Your task to perform on an android device: toggle show notifications on the lock screen Image 0: 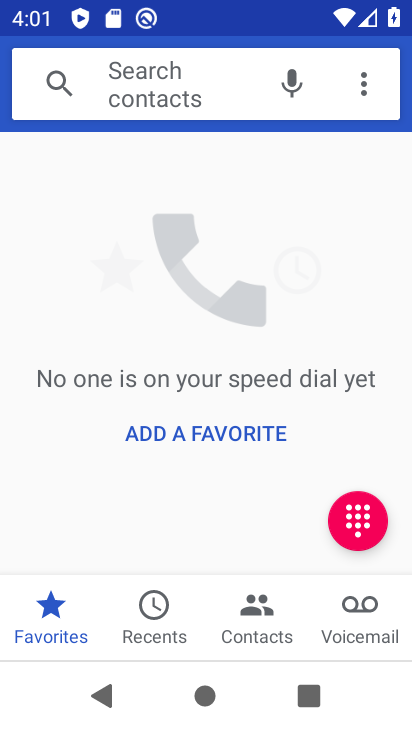
Step 0: press home button
Your task to perform on an android device: toggle show notifications on the lock screen Image 1: 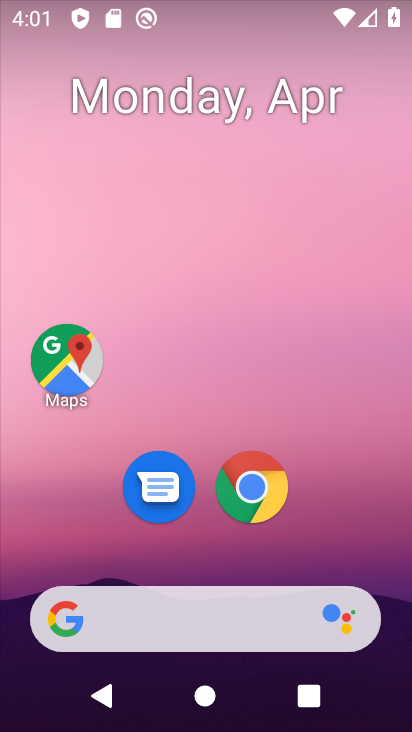
Step 1: drag from (377, 553) to (375, 163)
Your task to perform on an android device: toggle show notifications on the lock screen Image 2: 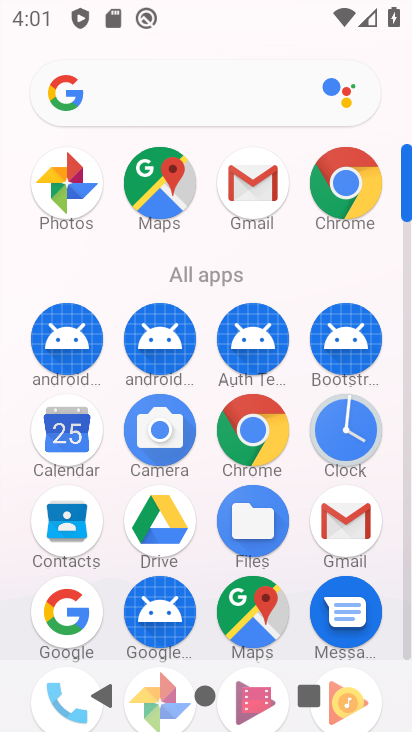
Step 2: drag from (399, 545) to (407, 480)
Your task to perform on an android device: toggle show notifications on the lock screen Image 3: 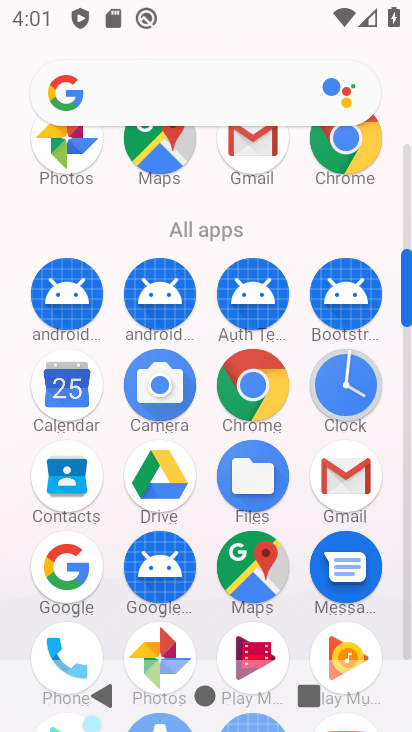
Step 3: drag from (408, 576) to (398, 410)
Your task to perform on an android device: toggle show notifications on the lock screen Image 4: 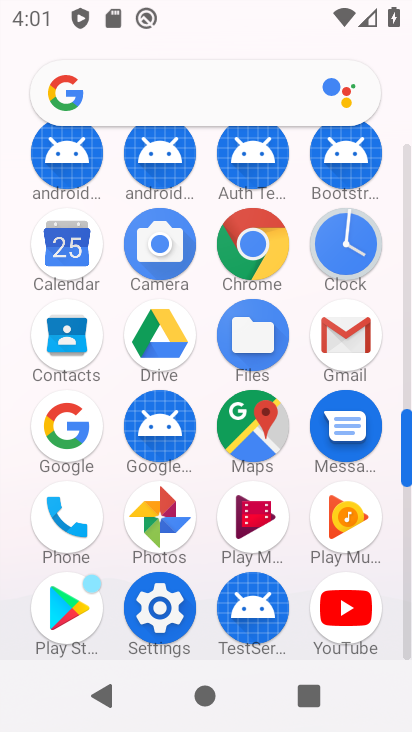
Step 4: click (169, 609)
Your task to perform on an android device: toggle show notifications on the lock screen Image 5: 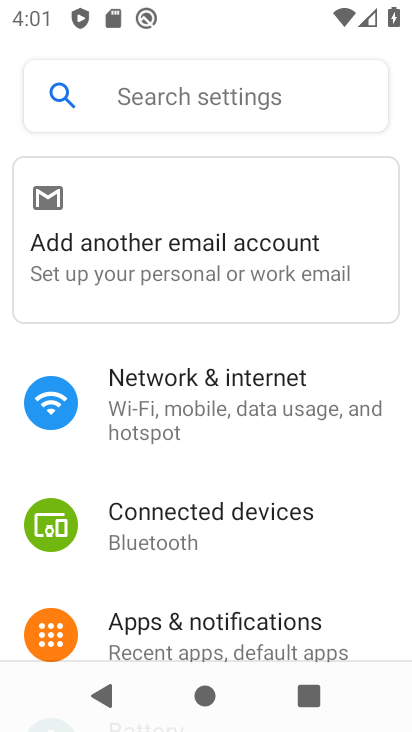
Step 5: drag from (368, 574) to (372, 432)
Your task to perform on an android device: toggle show notifications on the lock screen Image 6: 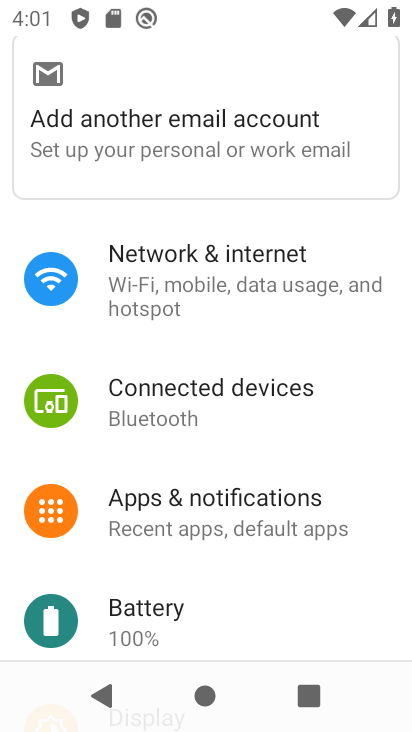
Step 6: drag from (370, 601) to (375, 470)
Your task to perform on an android device: toggle show notifications on the lock screen Image 7: 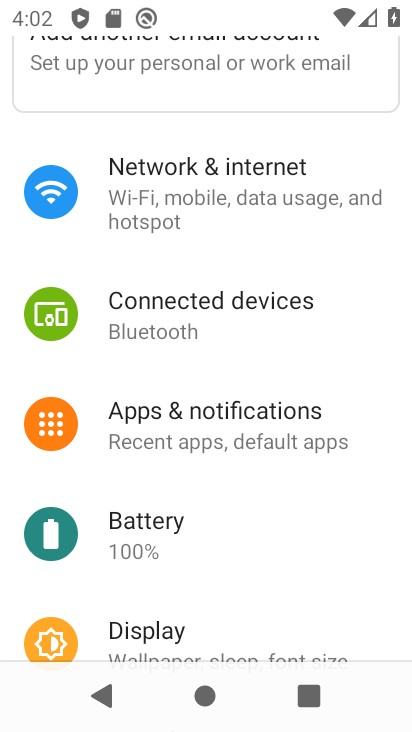
Step 7: drag from (370, 588) to (381, 449)
Your task to perform on an android device: toggle show notifications on the lock screen Image 8: 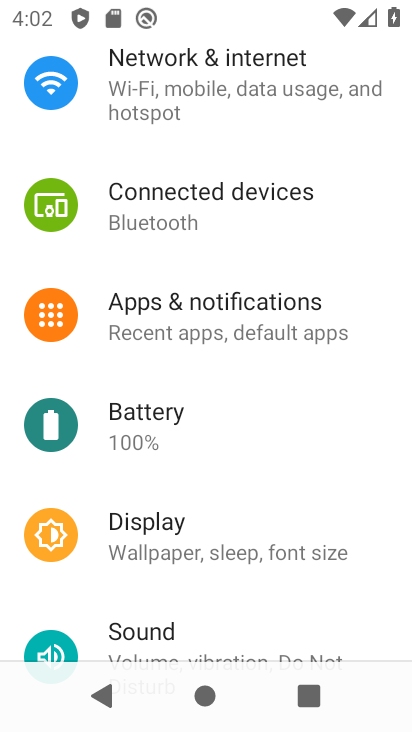
Step 8: drag from (380, 607) to (380, 433)
Your task to perform on an android device: toggle show notifications on the lock screen Image 9: 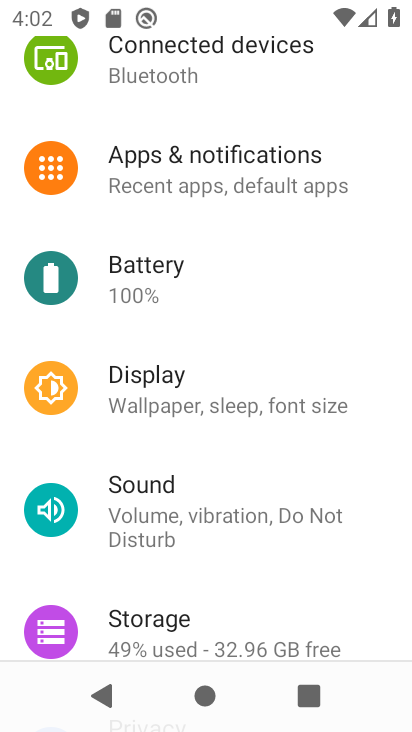
Step 9: drag from (388, 596) to (375, 394)
Your task to perform on an android device: toggle show notifications on the lock screen Image 10: 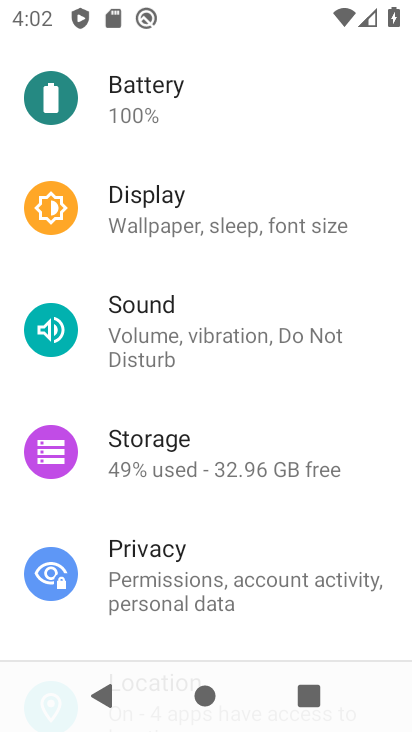
Step 10: drag from (346, 582) to (366, 430)
Your task to perform on an android device: toggle show notifications on the lock screen Image 11: 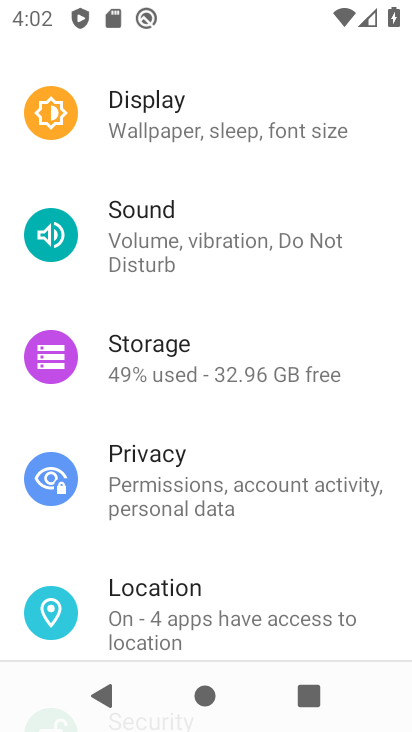
Step 11: drag from (377, 590) to (394, 379)
Your task to perform on an android device: toggle show notifications on the lock screen Image 12: 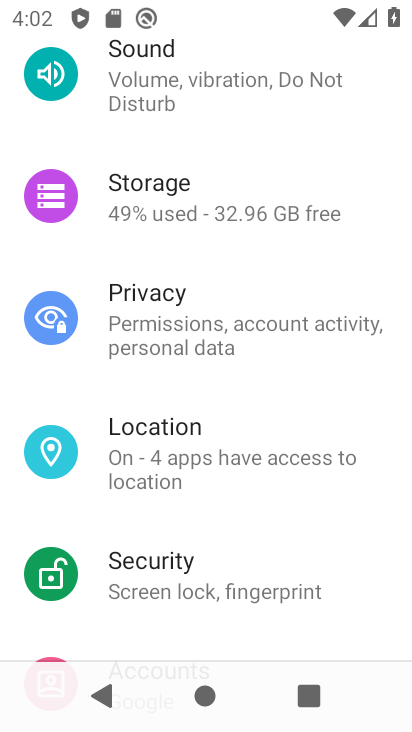
Step 12: drag from (386, 586) to (380, 445)
Your task to perform on an android device: toggle show notifications on the lock screen Image 13: 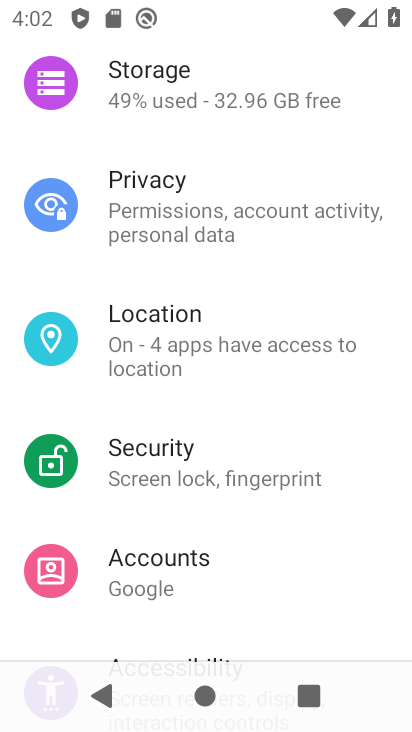
Step 13: drag from (371, 551) to (377, 420)
Your task to perform on an android device: toggle show notifications on the lock screen Image 14: 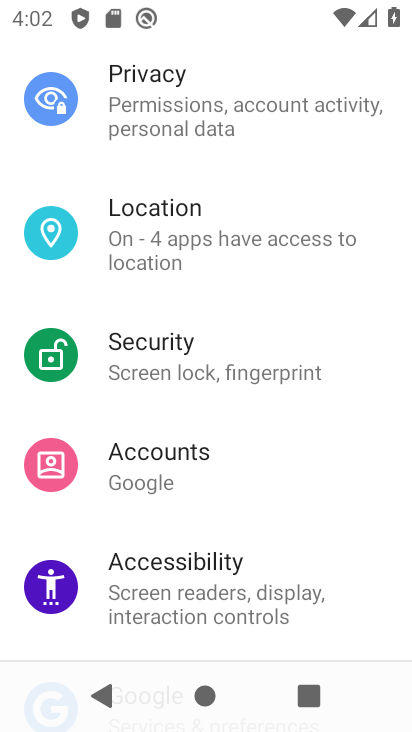
Step 14: drag from (376, 602) to (374, 409)
Your task to perform on an android device: toggle show notifications on the lock screen Image 15: 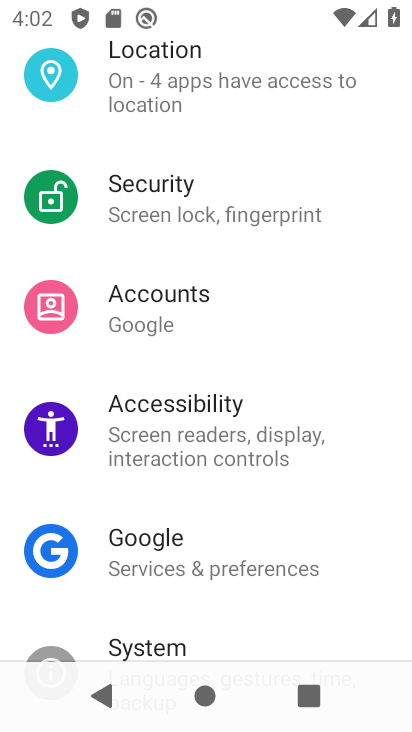
Step 15: drag from (368, 555) to (365, 349)
Your task to perform on an android device: toggle show notifications on the lock screen Image 16: 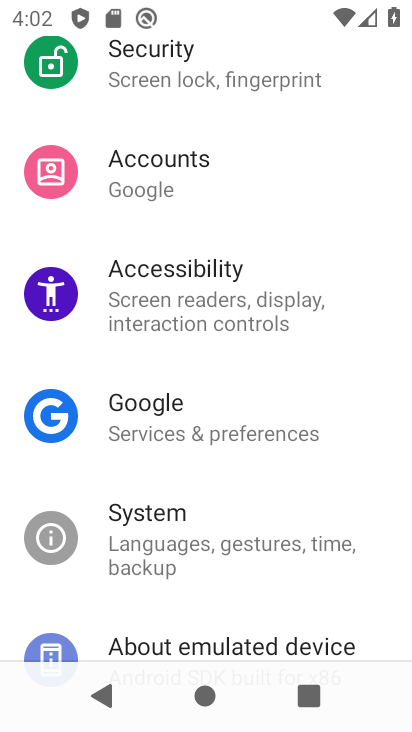
Step 16: drag from (362, 269) to (363, 426)
Your task to perform on an android device: toggle show notifications on the lock screen Image 17: 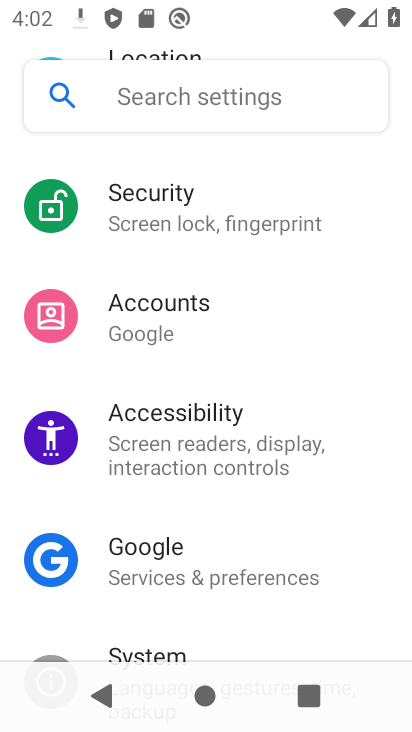
Step 17: drag from (358, 249) to (360, 404)
Your task to perform on an android device: toggle show notifications on the lock screen Image 18: 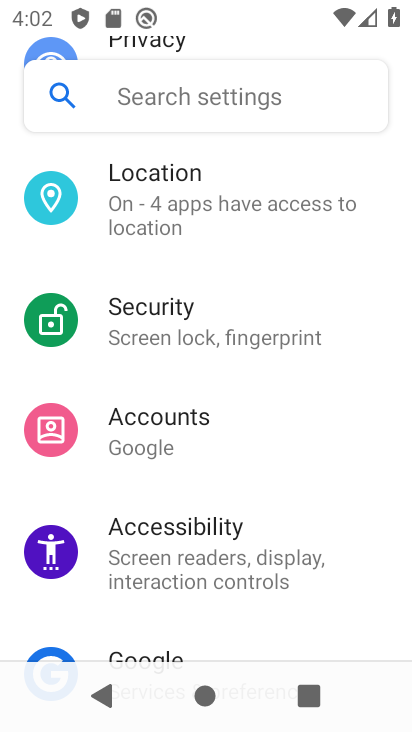
Step 18: drag from (364, 236) to (363, 399)
Your task to perform on an android device: toggle show notifications on the lock screen Image 19: 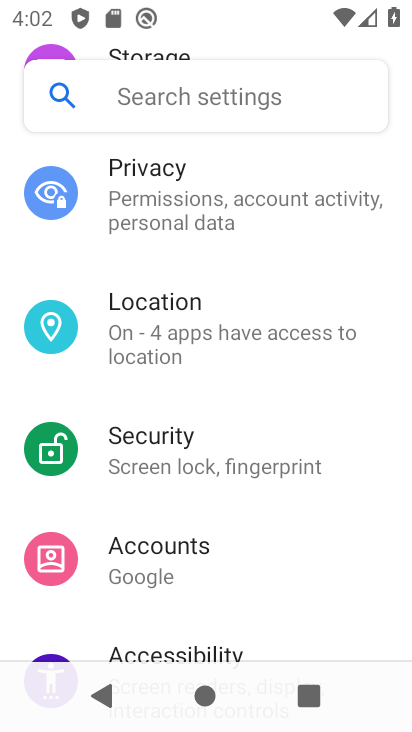
Step 19: drag from (367, 235) to (362, 404)
Your task to perform on an android device: toggle show notifications on the lock screen Image 20: 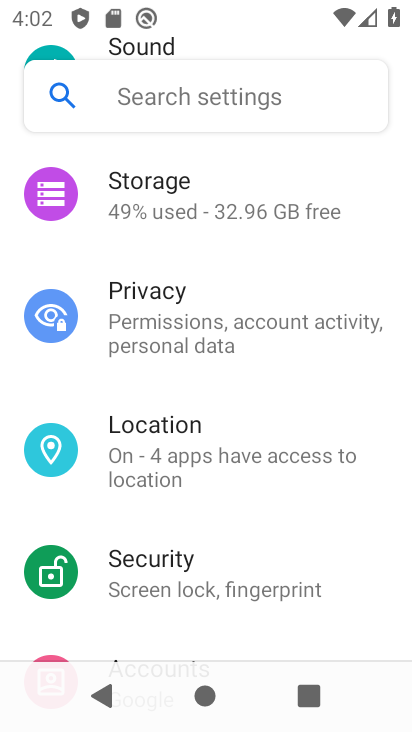
Step 20: drag from (363, 200) to (356, 402)
Your task to perform on an android device: toggle show notifications on the lock screen Image 21: 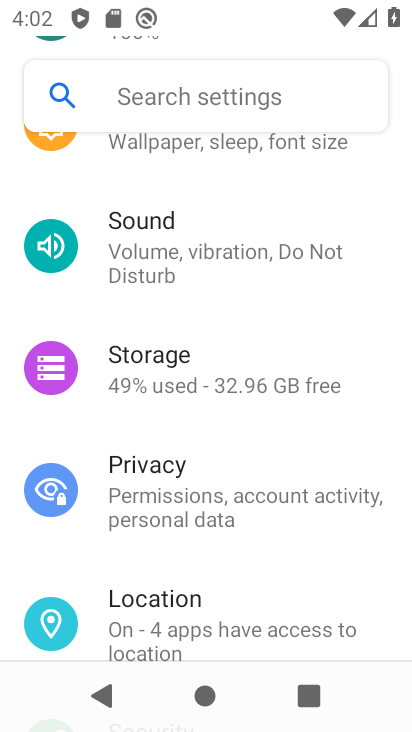
Step 21: drag from (365, 214) to (352, 371)
Your task to perform on an android device: toggle show notifications on the lock screen Image 22: 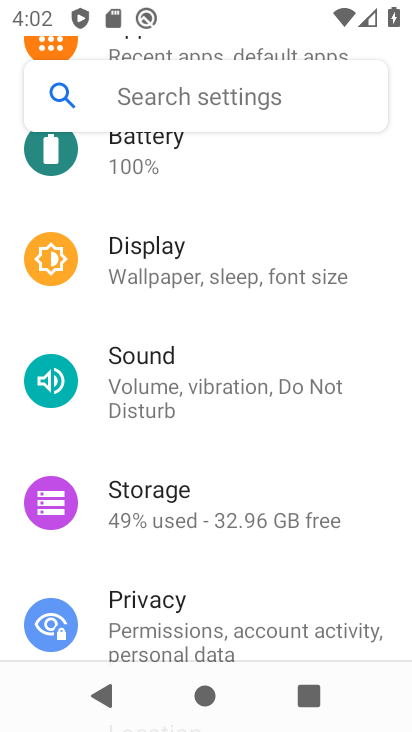
Step 22: drag from (369, 231) to (369, 382)
Your task to perform on an android device: toggle show notifications on the lock screen Image 23: 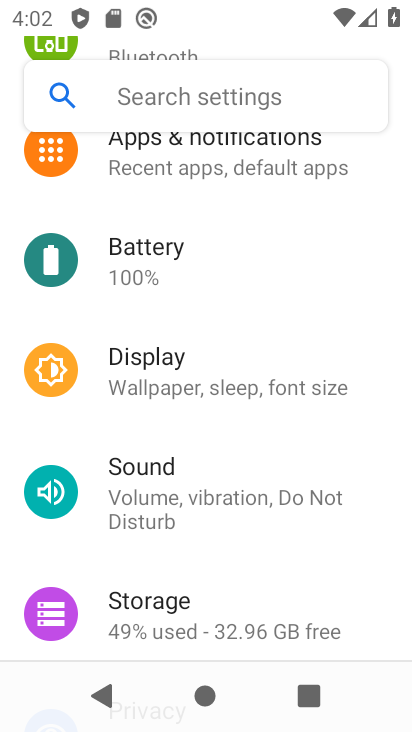
Step 23: drag from (358, 196) to (365, 351)
Your task to perform on an android device: toggle show notifications on the lock screen Image 24: 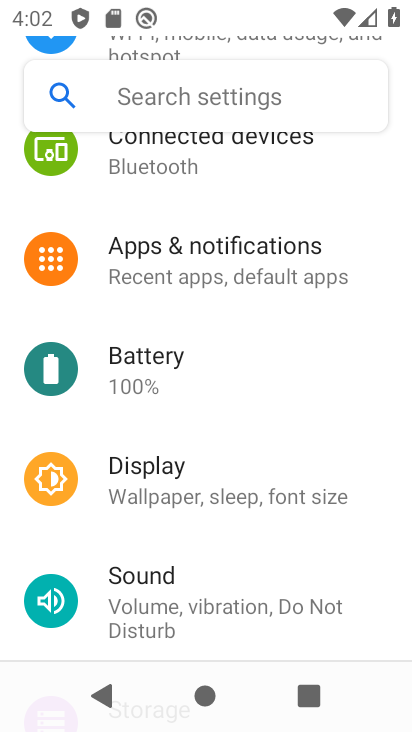
Step 24: click (263, 257)
Your task to perform on an android device: toggle show notifications on the lock screen Image 25: 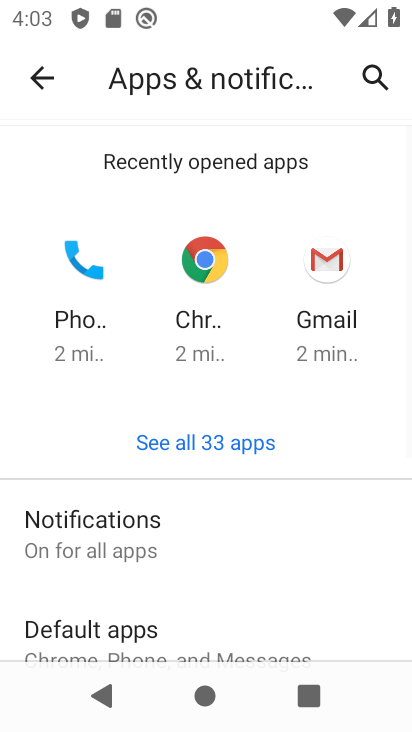
Step 25: click (130, 540)
Your task to perform on an android device: toggle show notifications on the lock screen Image 26: 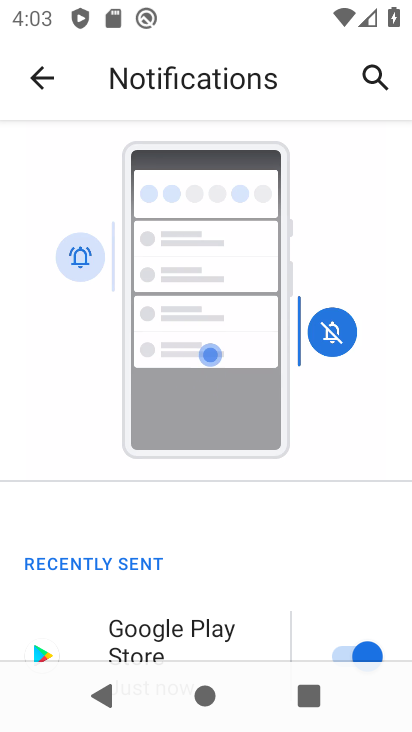
Step 26: drag from (291, 555) to (307, 282)
Your task to perform on an android device: toggle show notifications on the lock screen Image 27: 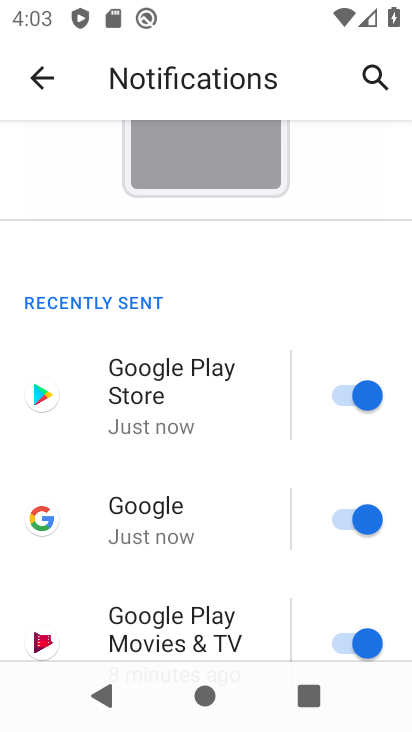
Step 27: drag from (247, 611) to (281, 222)
Your task to perform on an android device: toggle show notifications on the lock screen Image 28: 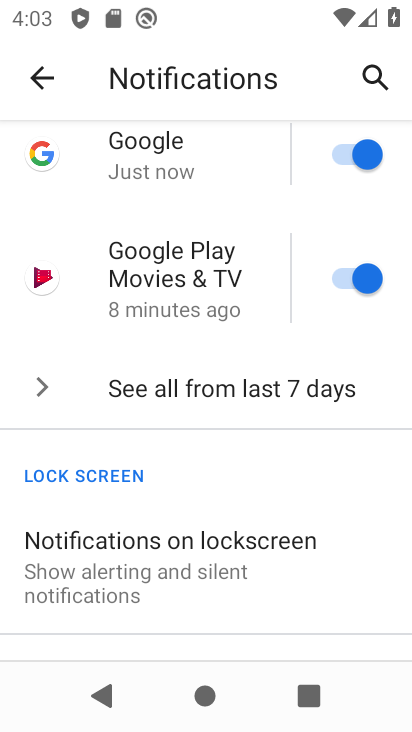
Step 28: click (211, 563)
Your task to perform on an android device: toggle show notifications on the lock screen Image 29: 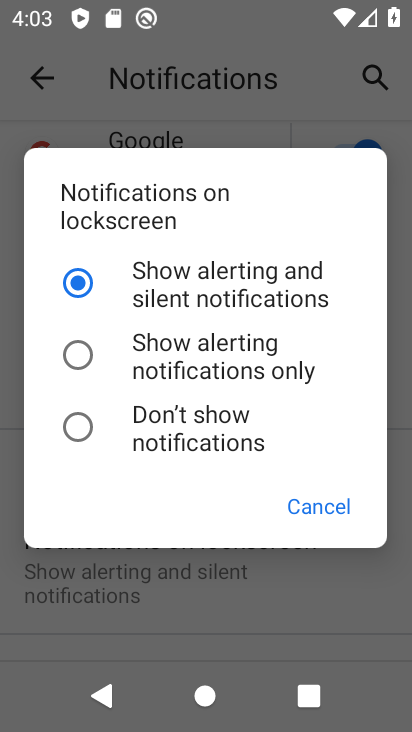
Step 29: click (243, 349)
Your task to perform on an android device: toggle show notifications on the lock screen Image 30: 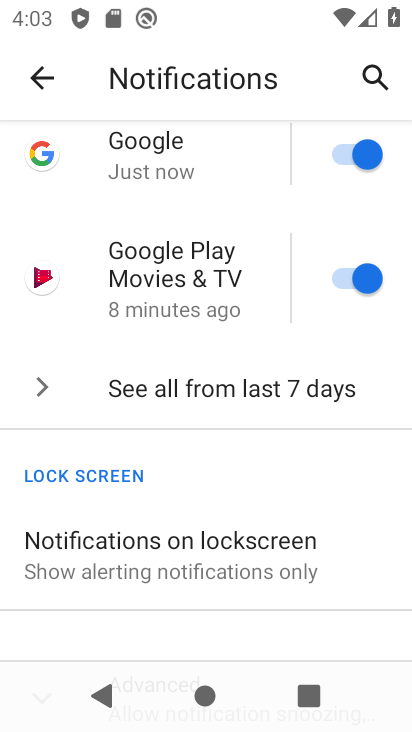
Step 30: task complete